Your task to perform on an android device: Show me popular videos on Youtube Image 0: 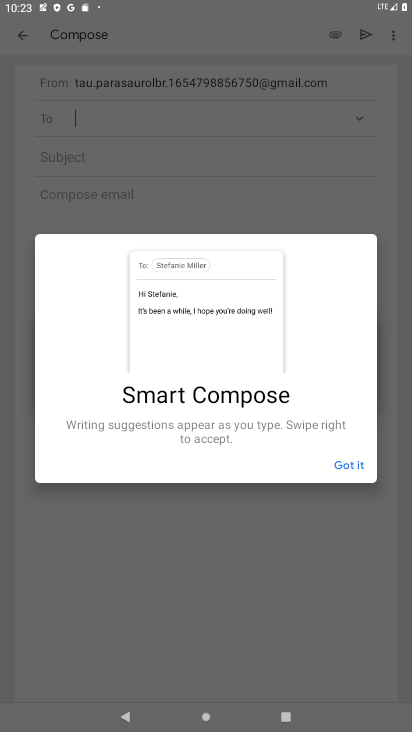
Step 0: press home button
Your task to perform on an android device: Show me popular videos on Youtube Image 1: 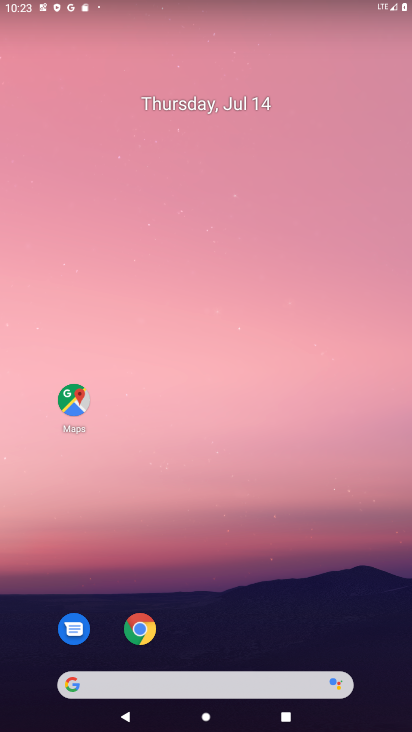
Step 1: drag from (57, 573) to (253, 126)
Your task to perform on an android device: Show me popular videos on Youtube Image 2: 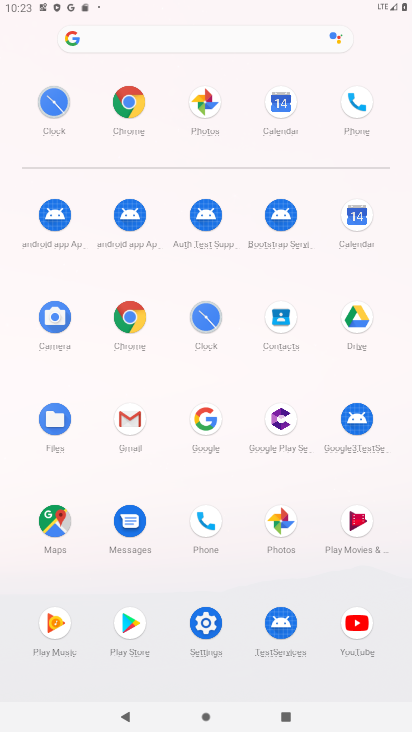
Step 2: click (360, 631)
Your task to perform on an android device: Show me popular videos on Youtube Image 3: 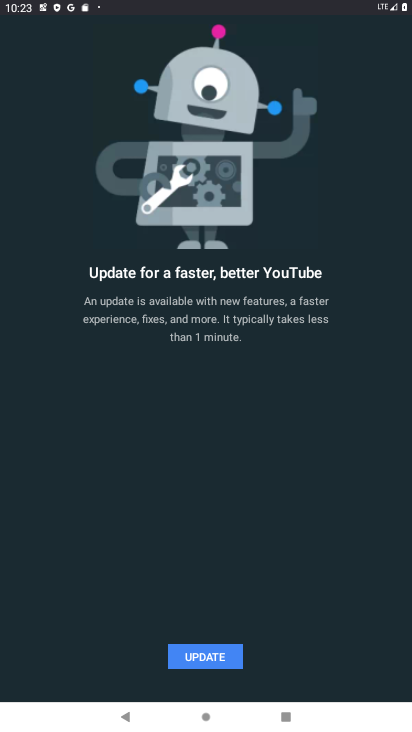
Step 3: task complete